Your task to perform on an android device: Go to display settings Image 0: 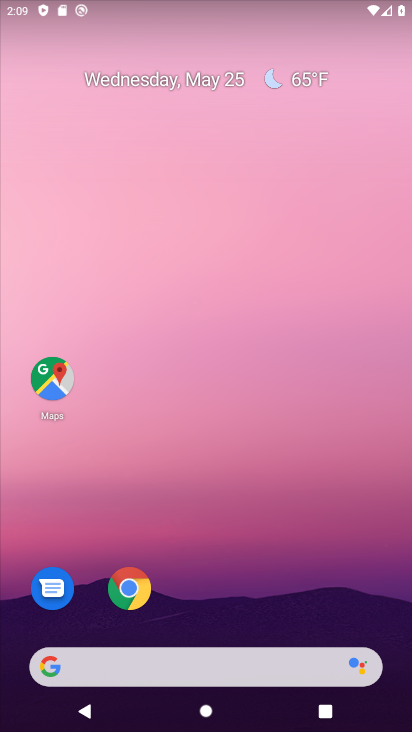
Step 0: drag from (230, 487) to (278, 270)
Your task to perform on an android device: Go to display settings Image 1: 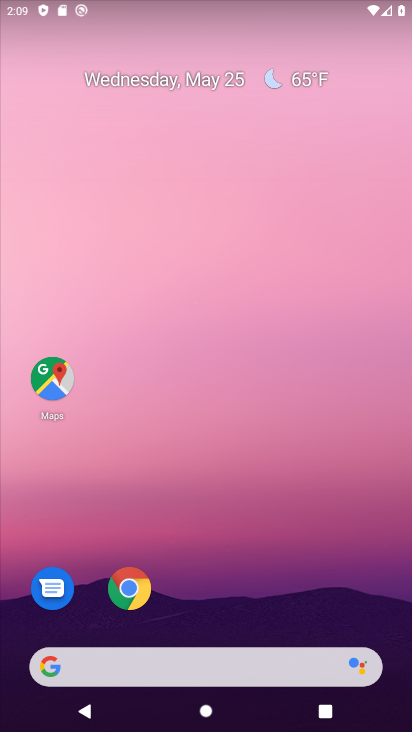
Step 1: drag from (170, 552) to (218, 155)
Your task to perform on an android device: Go to display settings Image 2: 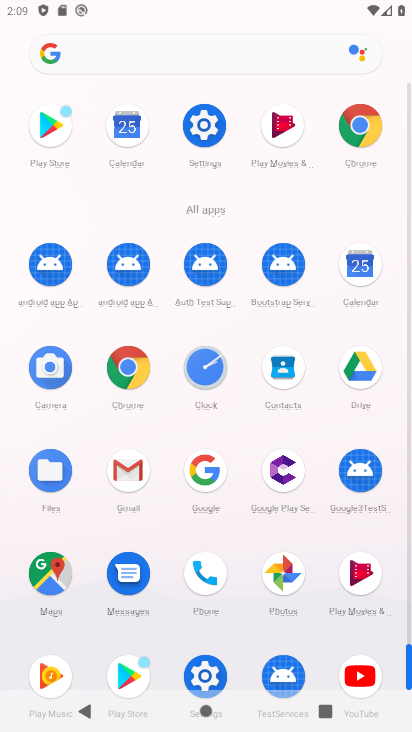
Step 2: click (205, 123)
Your task to perform on an android device: Go to display settings Image 3: 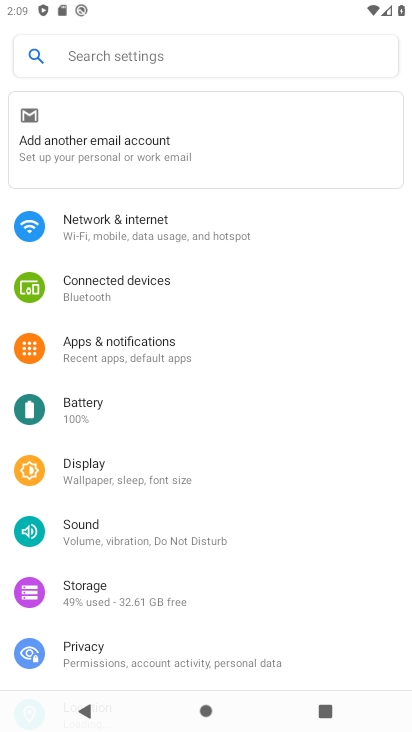
Step 3: click (110, 477)
Your task to perform on an android device: Go to display settings Image 4: 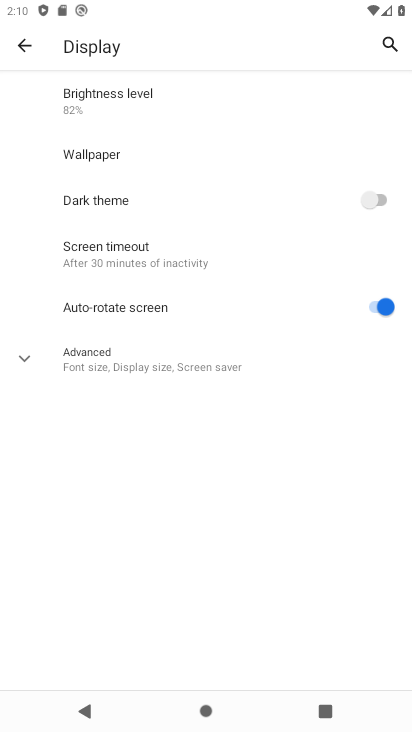
Step 4: task complete